Your task to perform on an android device: Go to sound settings Image 0: 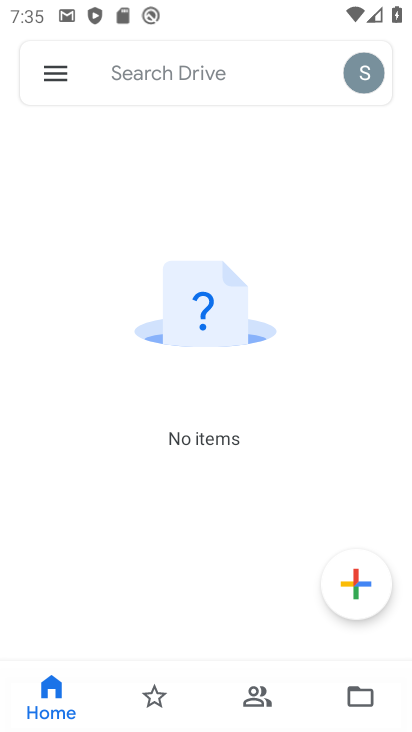
Step 0: press home button
Your task to perform on an android device: Go to sound settings Image 1: 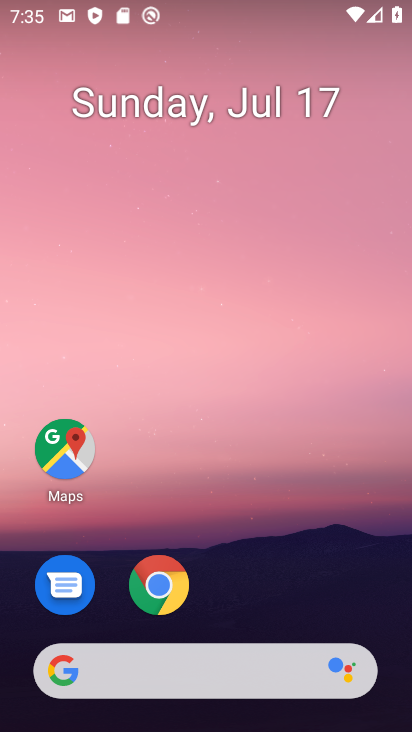
Step 1: drag from (227, 662) to (357, 74)
Your task to perform on an android device: Go to sound settings Image 2: 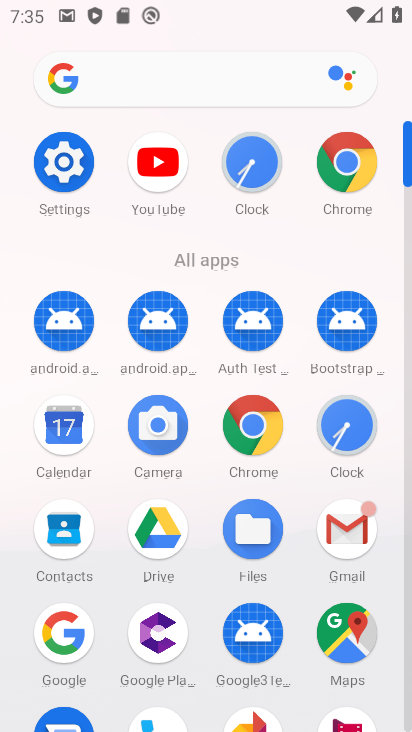
Step 2: drag from (281, 663) to (282, 267)
Your task to perform on an android device: Go to sound settings Image 3: 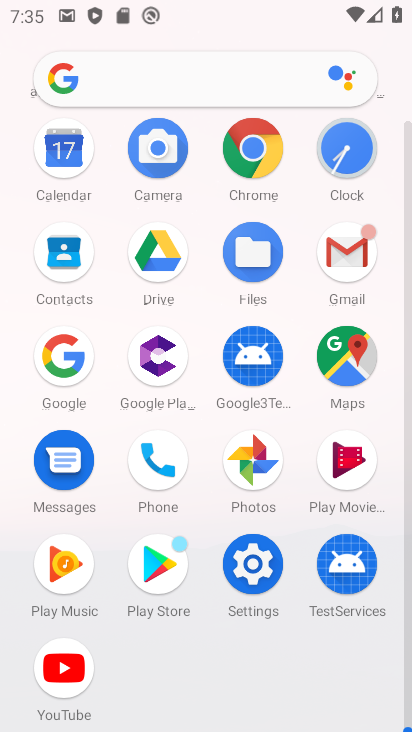
Step 3: click (259, 572)
Your task to perform on an android device: Go to sound settings Image 4: 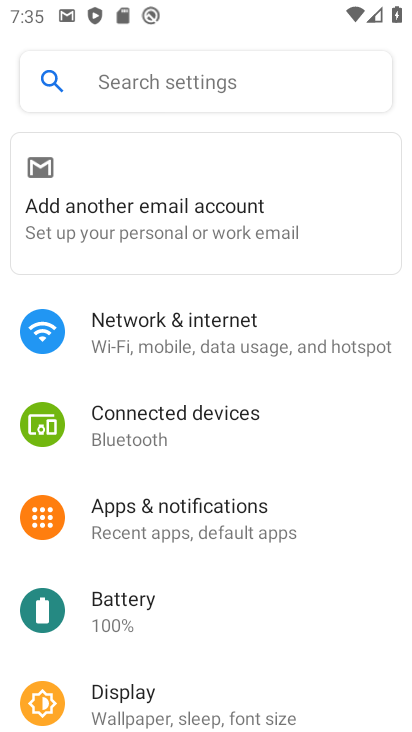
Step 4: drag from (288, 417) to (341, 67)
Your task to perform on an android device: Go to sound settings Image 5: 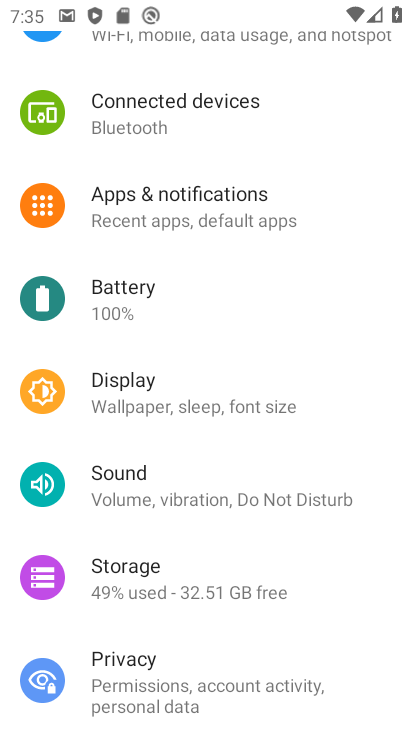
Step 5: click (140, 488)
Your task to perform on an android device: Go to sound settings Image 6: 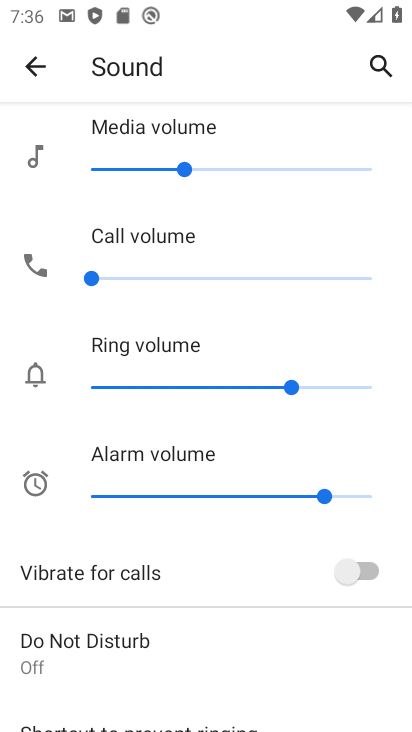
Step 6: task complete